Your task to perform on an android device: turn on wifi Image 0: 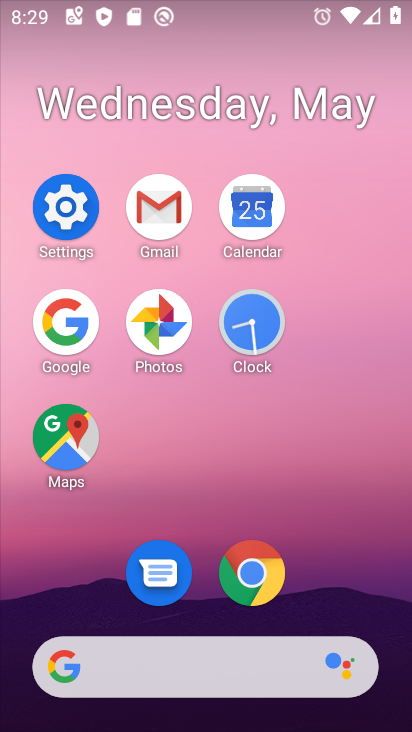
Step 0: click (67, 209)
Your task to perform on an android device: turn on wifi Image 1: 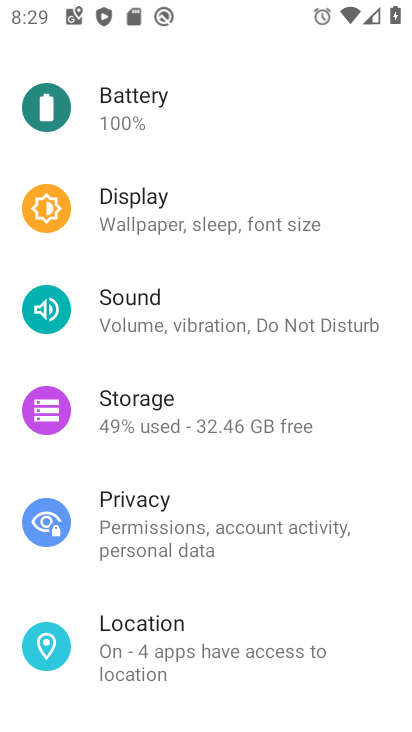
Step 1: drag from (262, 225) to (295, 517)
Your task to perform on an android device: turn on wifi Image 2: 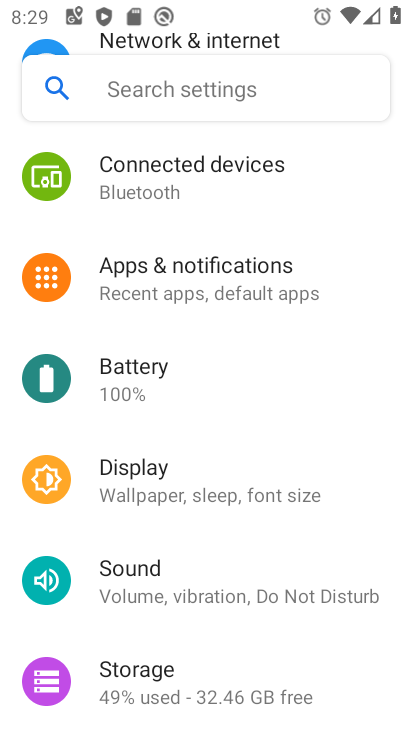
Step 2: drag from (268, 221) to (265, 570)
Your task to perform on an android device: turn on wifi Image 3: 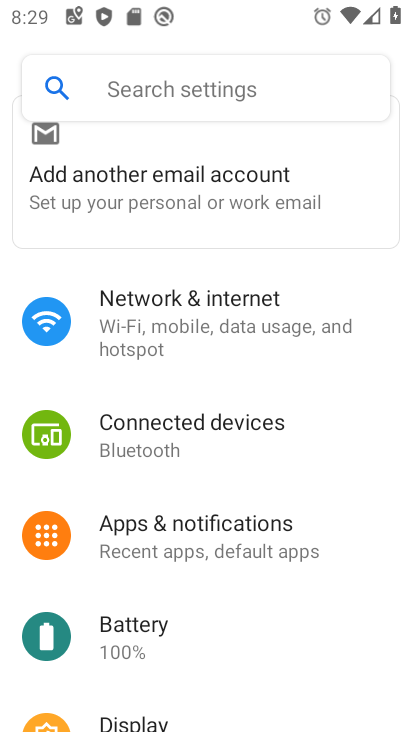
Step 3: click (193, 315)
Your task to perform on an android device: turn on wifi Image 4: 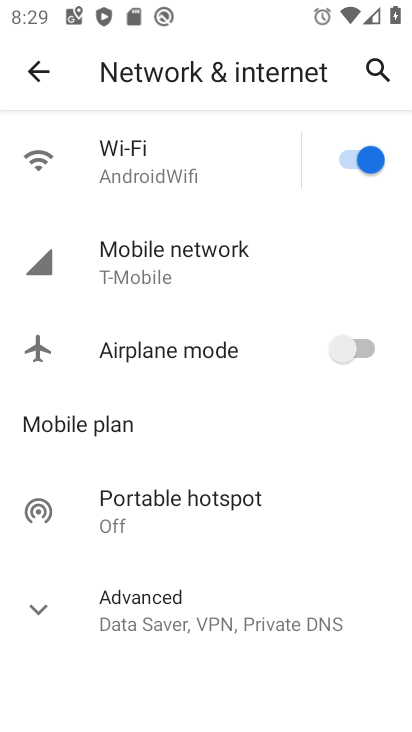
Step 4: task complete